Your task to perform on an android device: toggle show notifications on the lock screen Image 0: 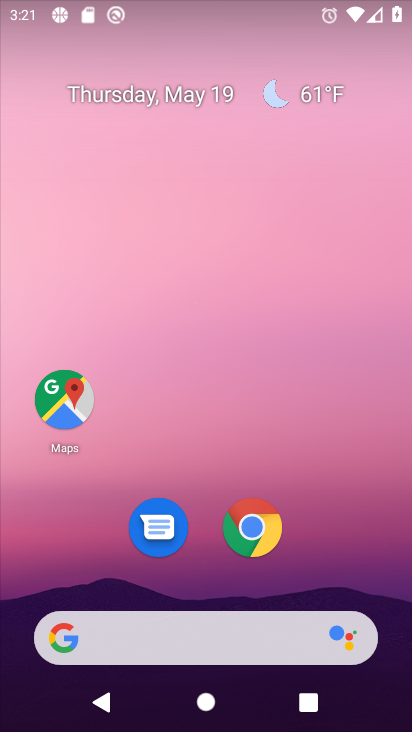
Step 0: drag from (189, 510) to (239, 133)
Your task to perform on an android device: toggle show notifications on the lock screen Image 1: 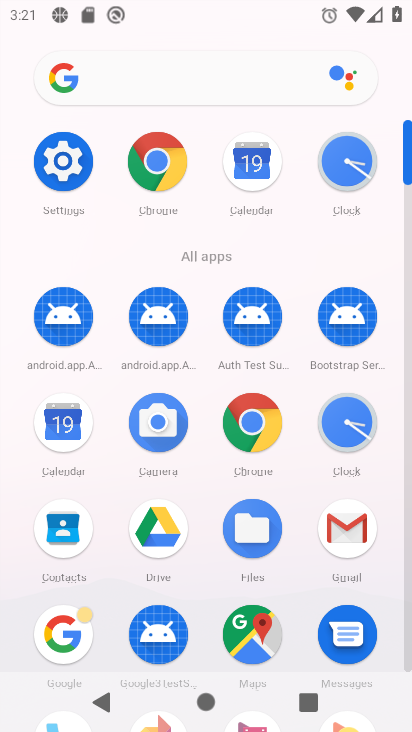
Step 1: click (70, 165)
Your task to perform on an android device: toggle show notifications on the lock screen Image 2: 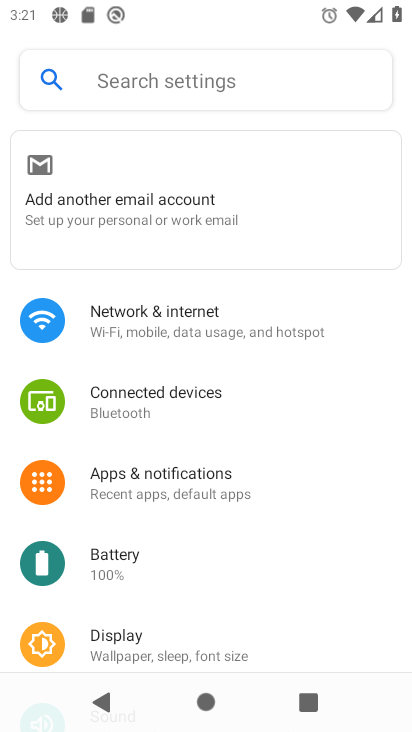
Step 2: click (212, 489)
Your task to perform on an android device: toggle show notifications on the lock screen Image 3: 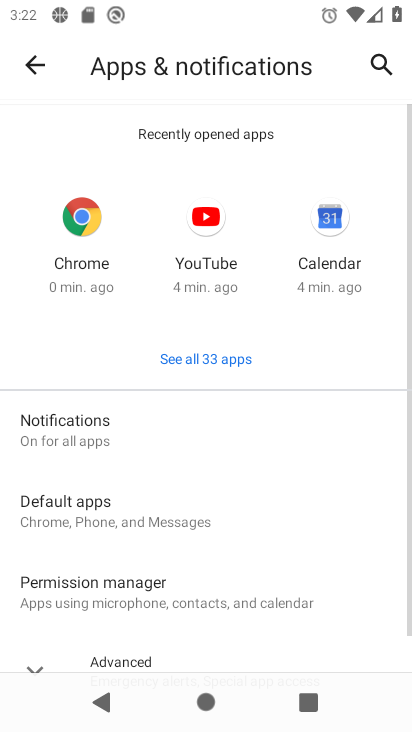
Step 3: click (72, 422)
Your task to perform on an android device: toggle show notifications on the lock screen Image 4: 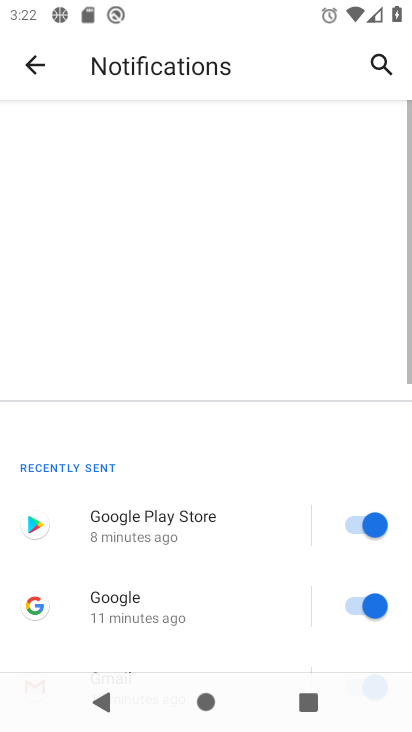
Step 4: drag from (167, 624) to (251, 62)
Your task to perform on an android device: toggle show notifications on the lock screen Image 5: 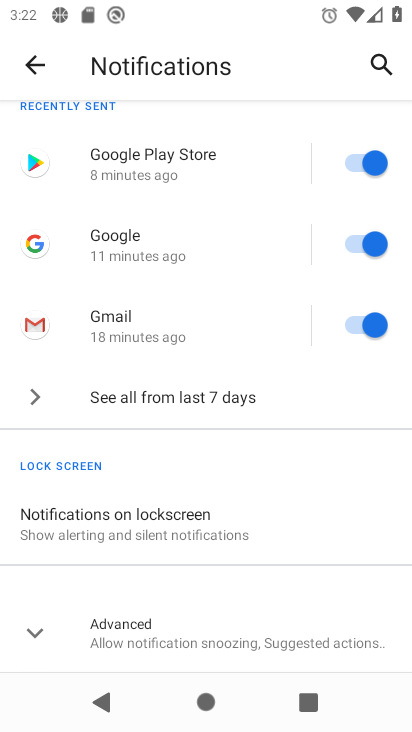
Step 5: click (128, 491)
Your task to perform on an android device: toggle show notifications on the lock screen Image 6: 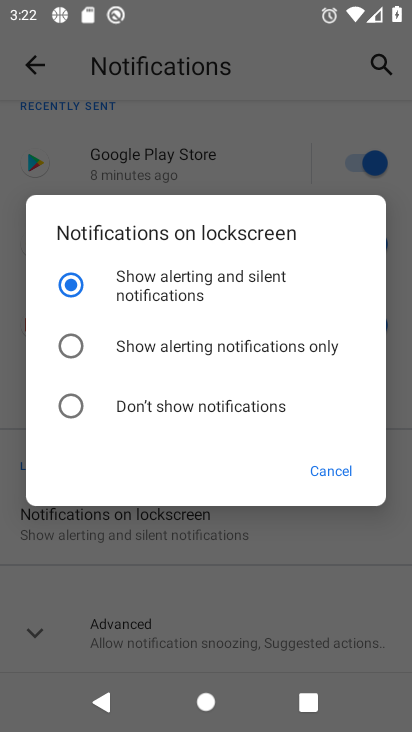
Step 6: click (61, 282)
Your task to perform on an android device: toggle show notifications on the lock screen Image 7: 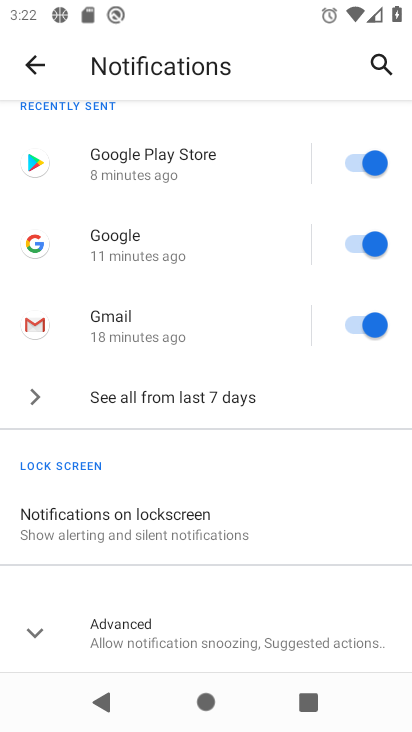
Step 7: task complete